Your task to perform on an android device: View the shopping cart on costco. Image 0: 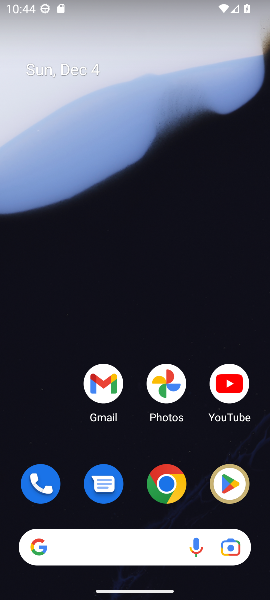
Step 0: click (171, 485)
Your task to perform on an android device: View the shopping cart on costco. Image 1: 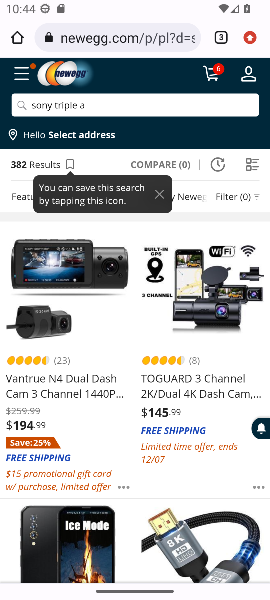
Step 1: click (107, 45)
Your task to perform on an android device: View the shopping cart on costco. Image 2: 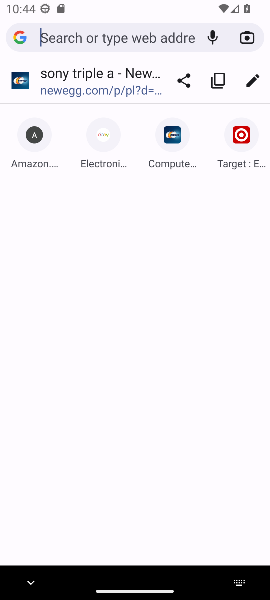
Step 2: type "costco.com"
Your task to perform on an android device: View the shopping cart on costco. Image 3: 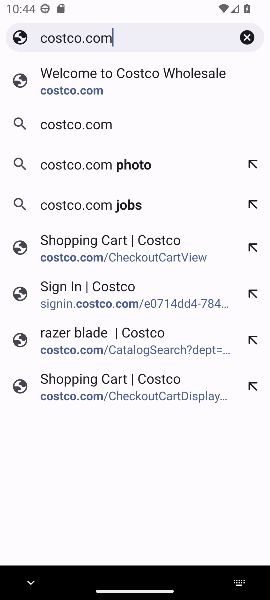
Step 3: click (48, 95)
Your task to perform on an android device: View the shopping cart on costco. Image 4: 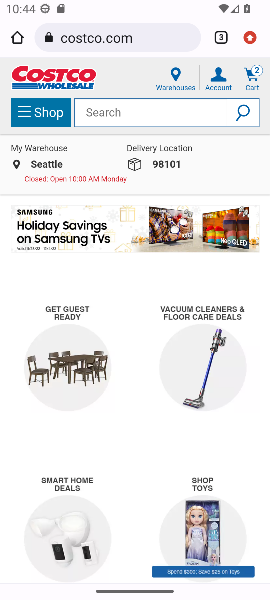
Step 4: click (251, 83)
Your task to perform on an android device: View the shopping cart on costco. Image 5: 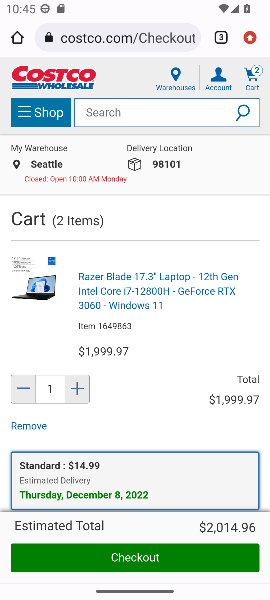
Step 5: task complete